Your task to perform on an android device: turn on airplane mode Image 0: 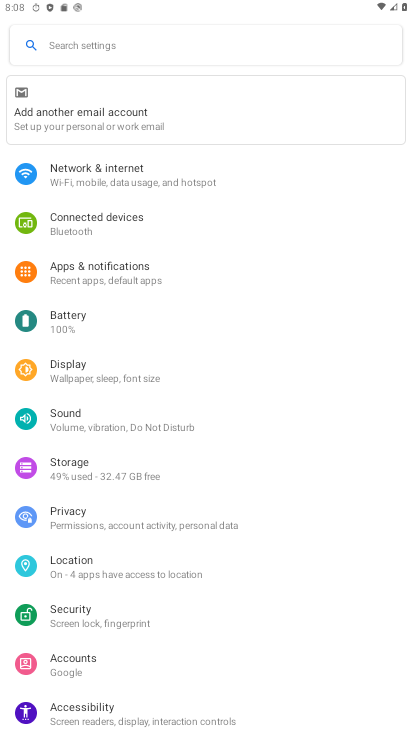
Step 0: click (122, 170)
Your task to perform on an android device: turn on airplane mode Image 1: 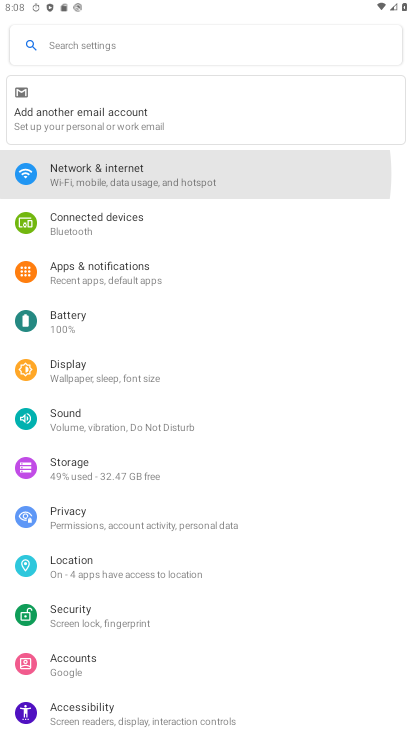
Step 1: click (121, 167)
Your task to perform on an android device: turn on airplane mode Image 2: 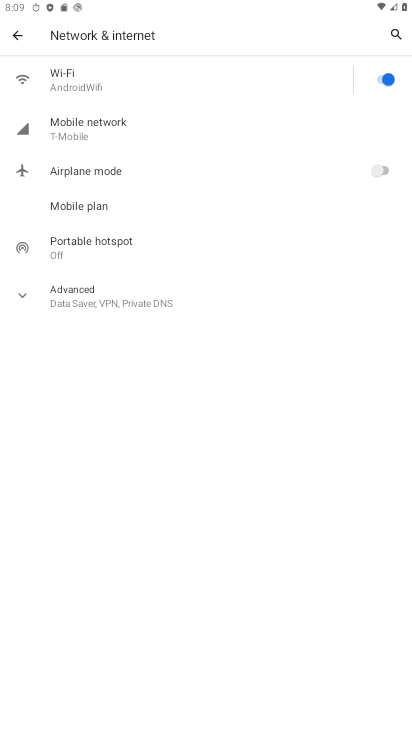
Step 2: click (385, 168)
Your task to perform on an android device: turn on airplane mode Image 3: 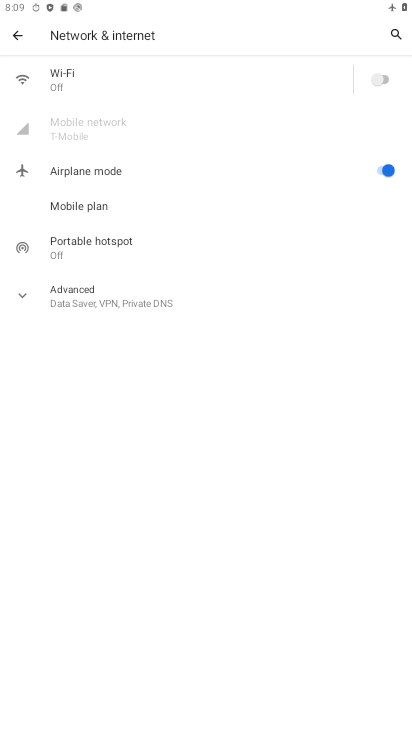
Step 3: task complete